Your task to perform on an android device: Open Wikipedia Image 0: 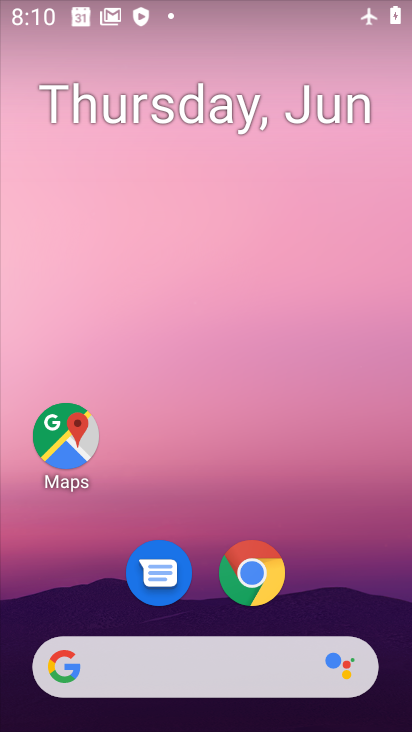
Step 0: drag from (283, 480) to (283, 228)
Your task to perform on an android device: Open Wikipedia Image 1: 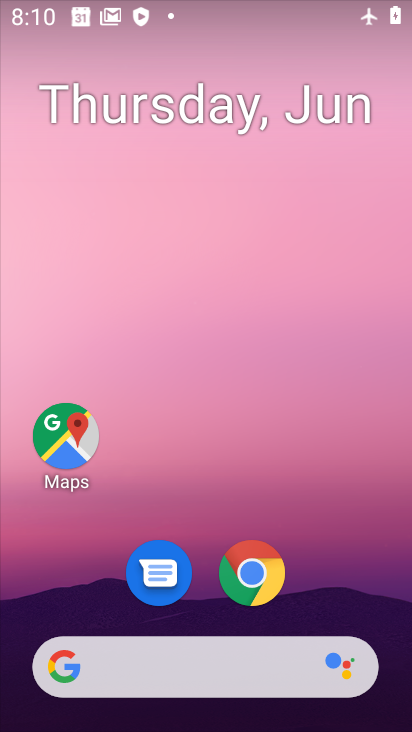
Step 1: click (282, 577)
Your task to perform on an android device: Open Wikipedia Image 2: 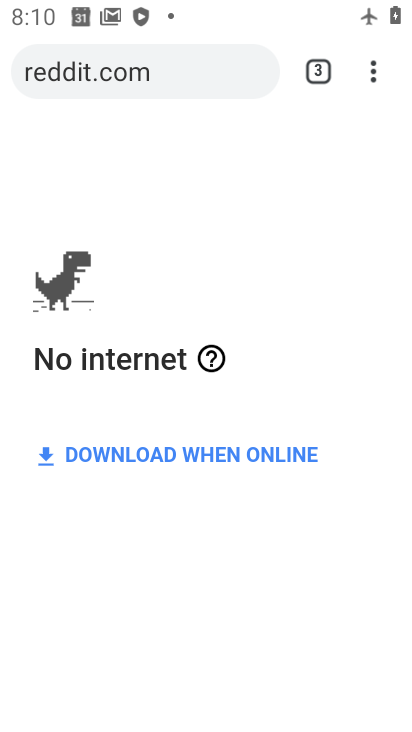
Step 2: click (387, 58)
Your task to perform on an android device: Open Wikipedia Image 3: 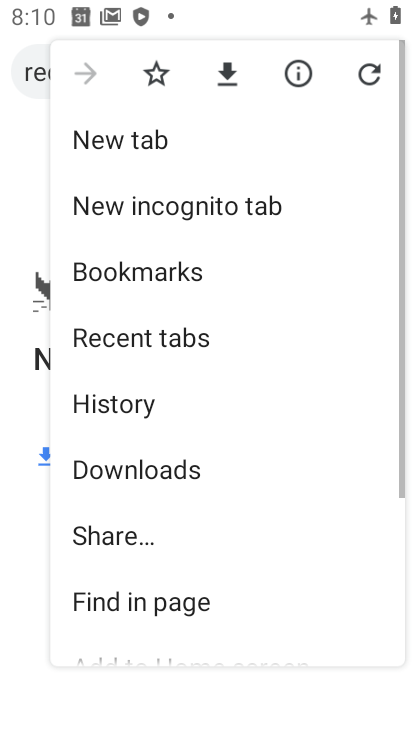
Step 3: click (167, 134)
Your task to perform on an android device: Open Wikipedia Image 4: 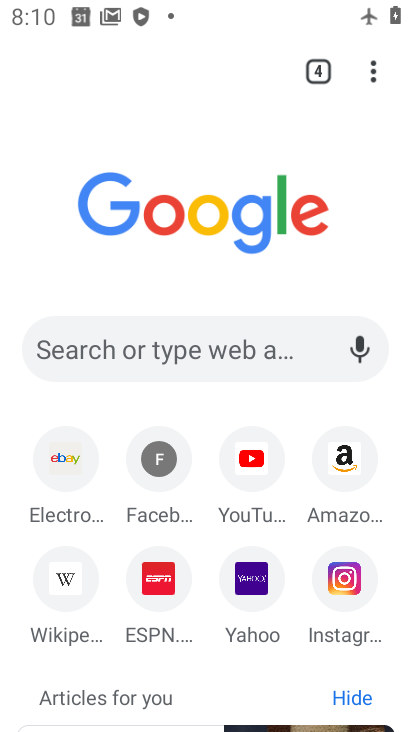
Step 4: click (65, 581)
Your task to perform on an android device: Open Wikipedia Image 5: 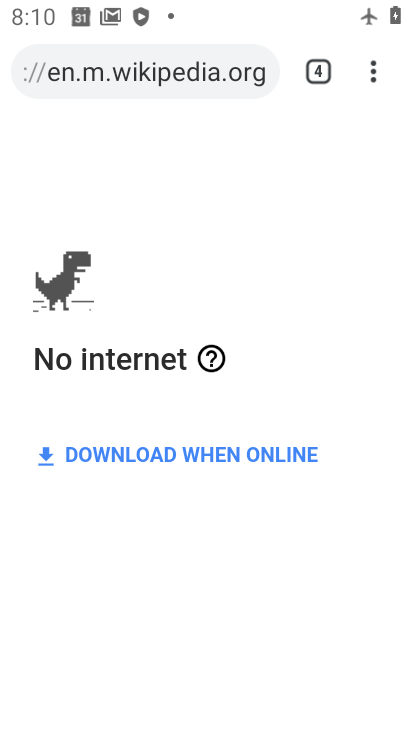
Step 5: task complete